Your task to perform on an android device: star an email in the gmail app Image 0: 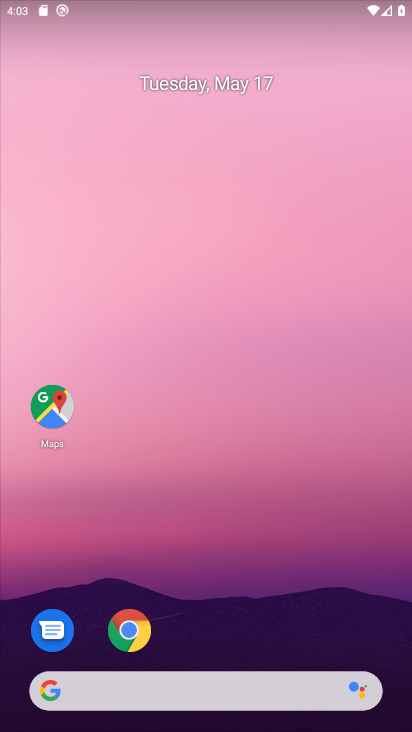
Step 0: drag from (376, 626) to (358, 25)
Your task to perform on an android device: star an email in the gmail app Image 1: 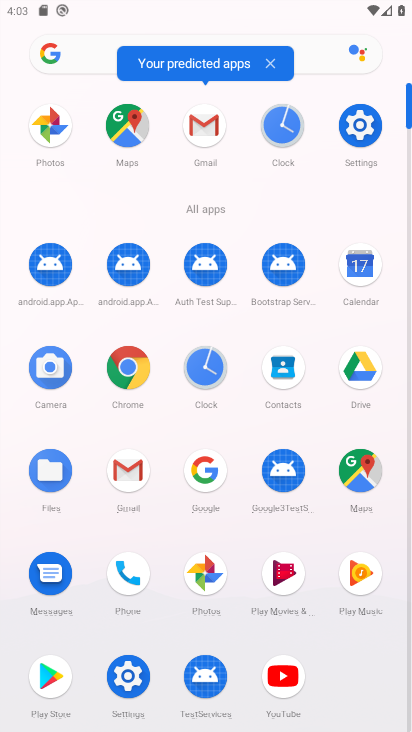
Step 1: click (407, 656)
Your task to perform on an android device: star an email in the gmail app Image 2: 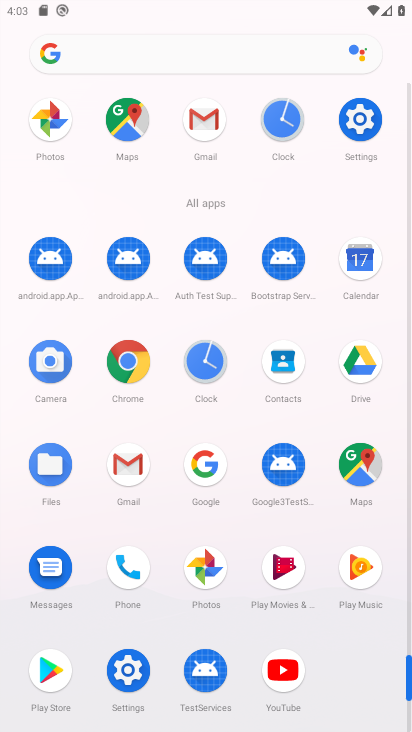
Step 2: click (124, 463)
Your task to perform on an android device: star an email in the gmail app Image 3: 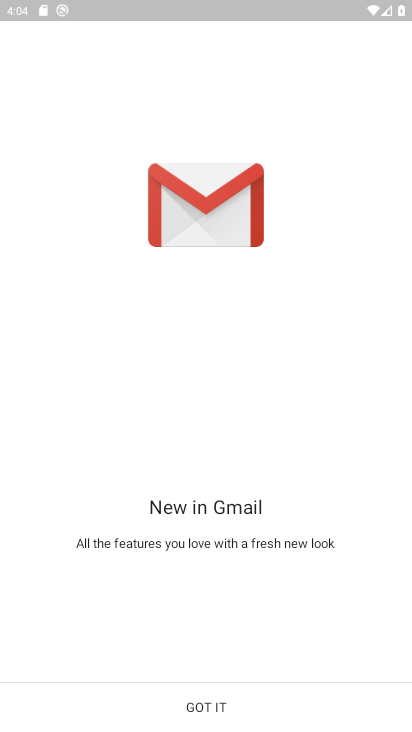
Step 3: click (199, 710)
Your task to perform on an android device: star an email in the gmail app Image 4: 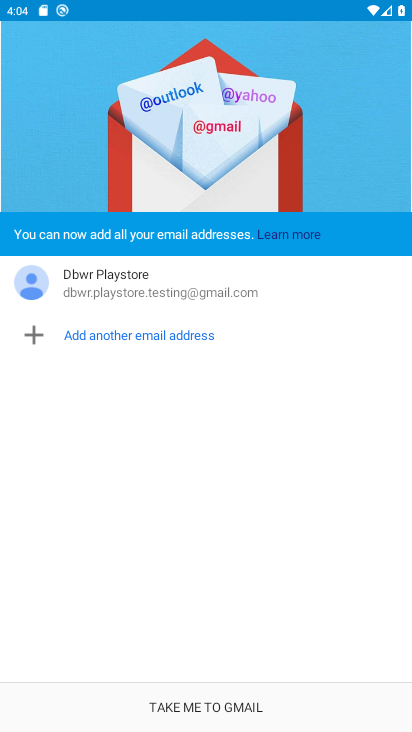
Step 4: click (199, 710)
Your task to perform on an android device: star an email in the gmail app Image 5: 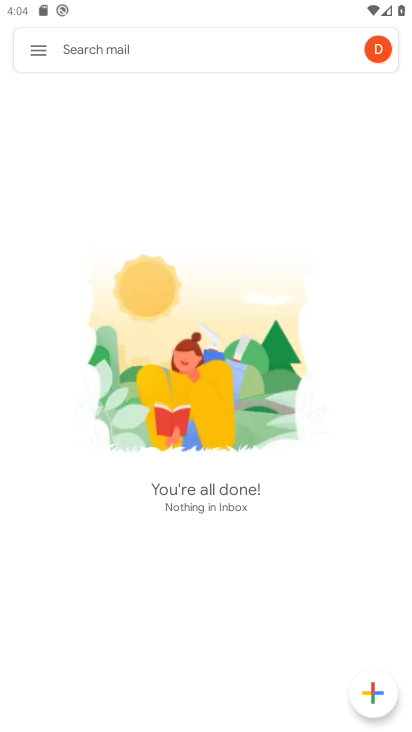
Step 5: click (39, 50)
Your task to perform on an android device: star an email in the gmail app Image 6: 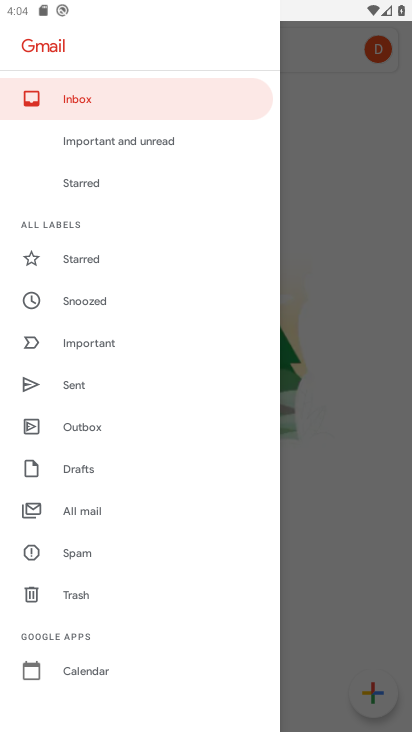
Step 6: click (84, 503)
Your task to perform on an android device: star an email in the gmail app Image 7: 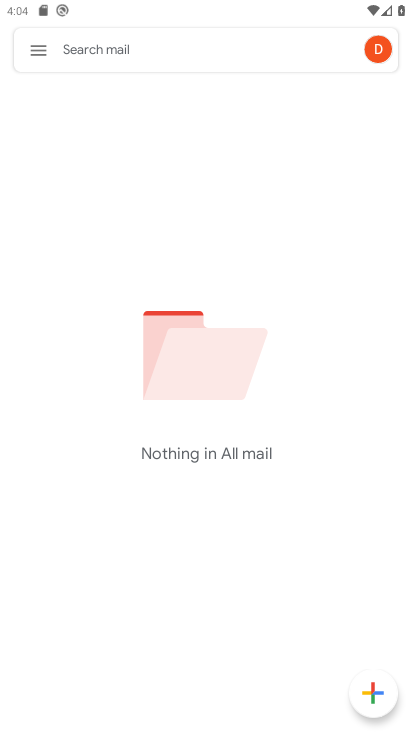
Step 7: task complete